Your task to perform on an android device: Show me productivity apps on the Play Store Image 0: 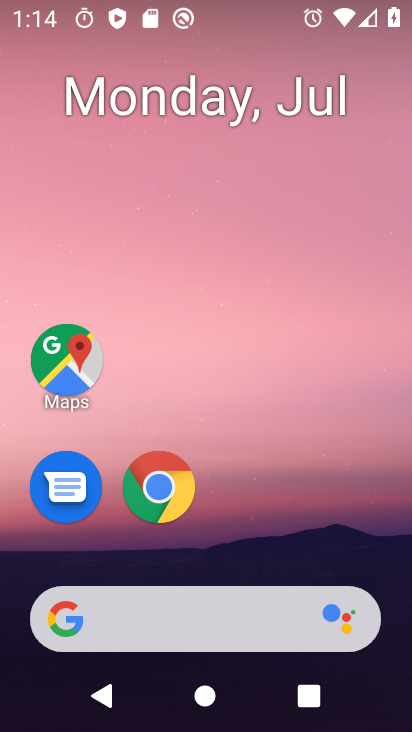
Step 0: press home button
Your task to perform on an android device: Show me productivity apps on the Play Store Image 1: 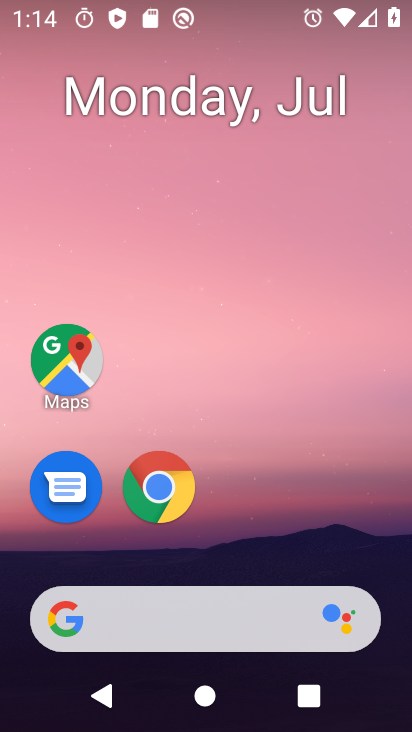
Step 1: press home button
Your task to perform on an android device: Show me productivity apps on the Play Store Image 2: 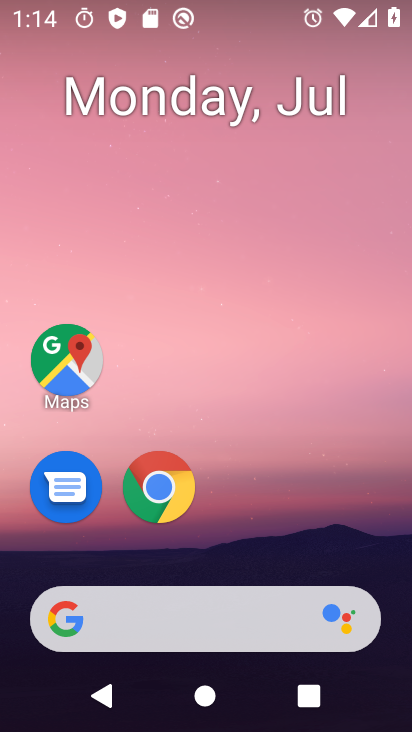
Step 2: drag from (289, 520) to (334, 77)
Your task to perform on an android device: Show me productivity apps on the Play Store Image 3: 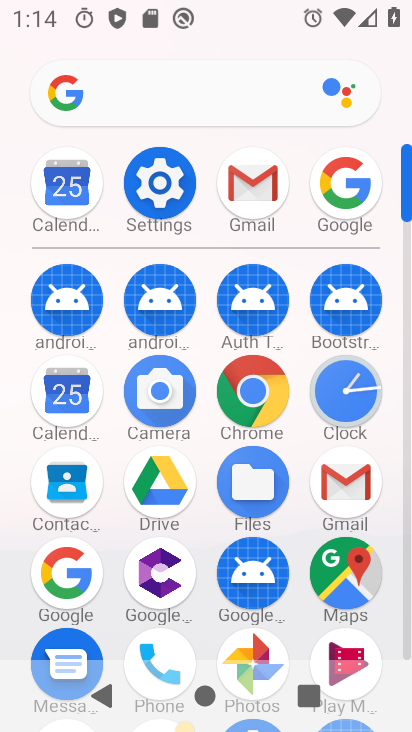
Step 3: drag from (201, 624) to (206, 319)
Your task to perform on an android device: Show me productivity apps on the Play Store Image 4: 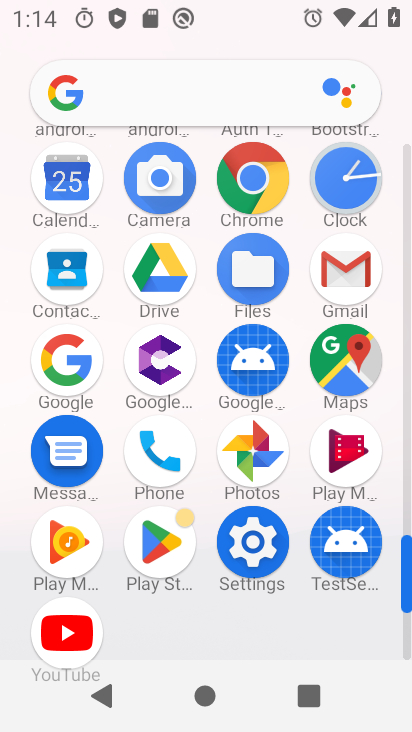
Step 4: click (151, 555)
Your task to perform on an android device: Show me productivity apps on the Play Store Image 5: 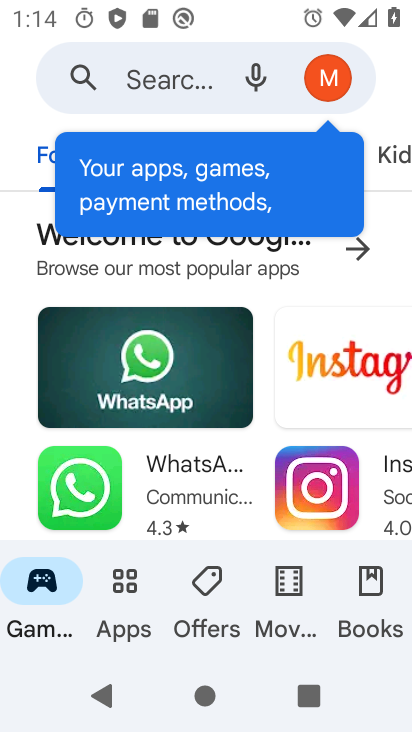
Step 5: click (125, 572)
Your task to perform on an android device: Show me productivity apps on the Play Store Image 6: 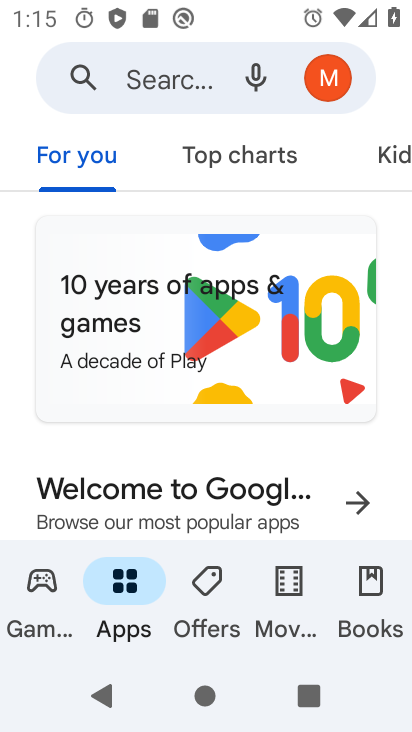
Step 6: drag from (335, 148) to (56, 156)
Your task to perform on an android device: Show me productivity apps on the Play Store Image 7: 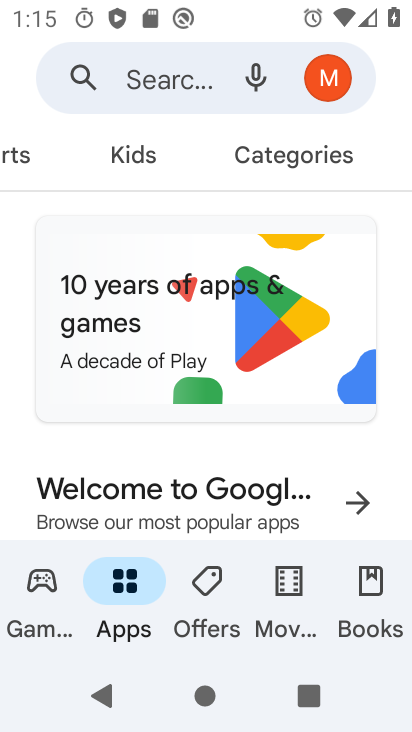
Step 7: click (277, 153)
Your task to perform on an android device: Show me productivity apps on the Play Store Image 8: 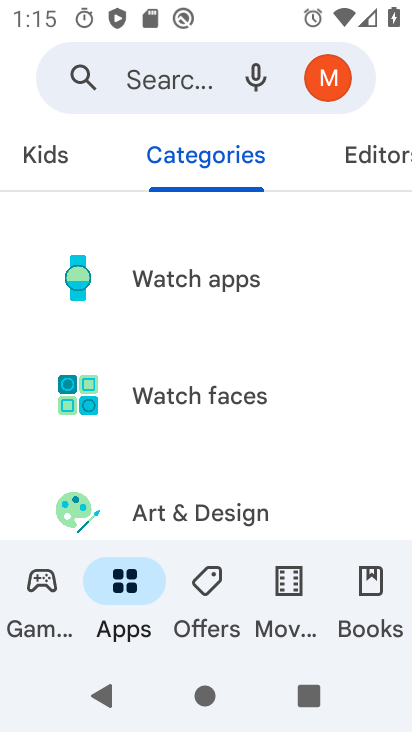
Step 8: drag from (272, 494) to (253, 206)
Your task to perform on an android device: Show me productivity apps on the Play Store Image 9: 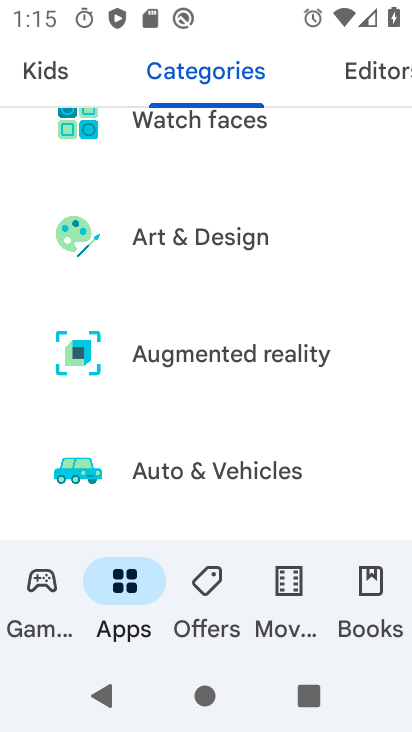
Step 9: drag from (328, 501) to (304, 174)
Your task to perform on an android device: Show me productivity apps on the Play Store Image 10: 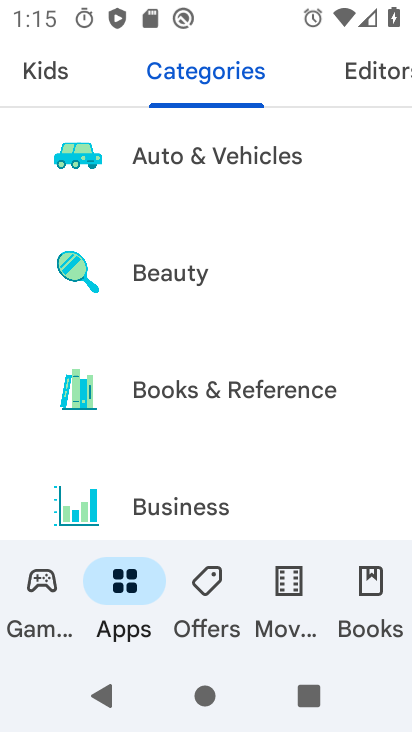
Step 10: drag from (249, 499) to (223, 39)
Your task to perform on an android device: Show me productivity apps on the Play Store Image 11: 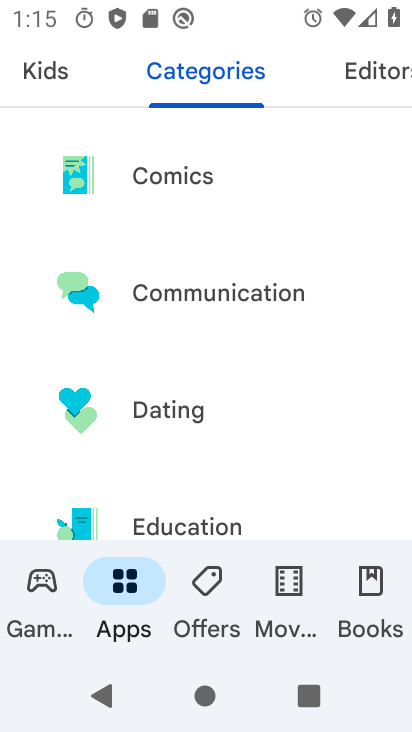
Step 11: drag from (280, 508) to (251, 46)
Your task to perform on an android device: Show me productivity apps on the Play Store Image 12: 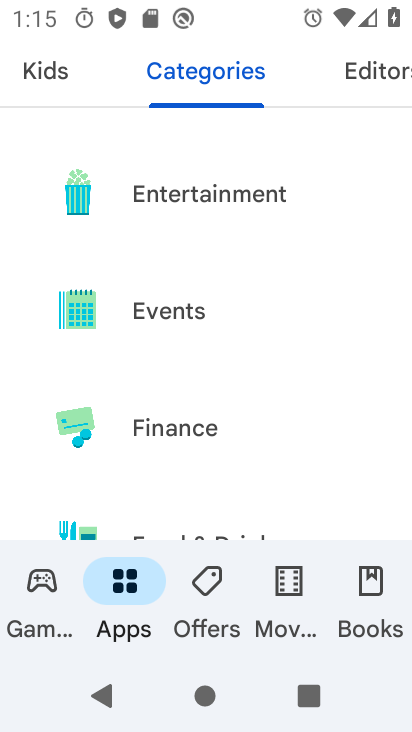
Step 12: drag from (323, 505) to (303, 118)
Your task to perform on an android device: Show me productivity apps on the Play Store Image 13: 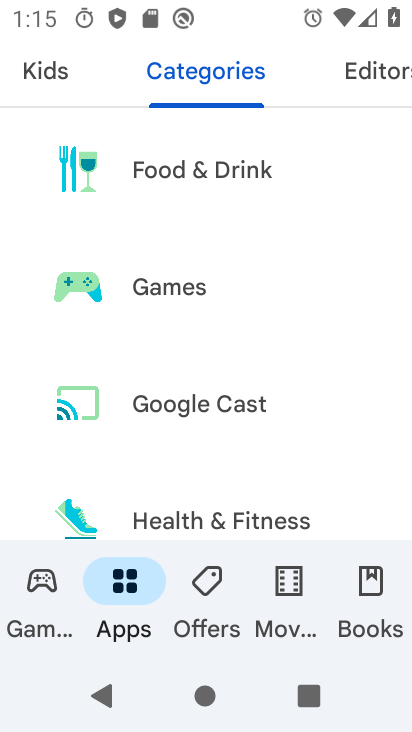
Step 13: drag from (267, 228) to (279, 86)
Your task to perform on an android device: Show me productivity apps on the Play Store Image 14: 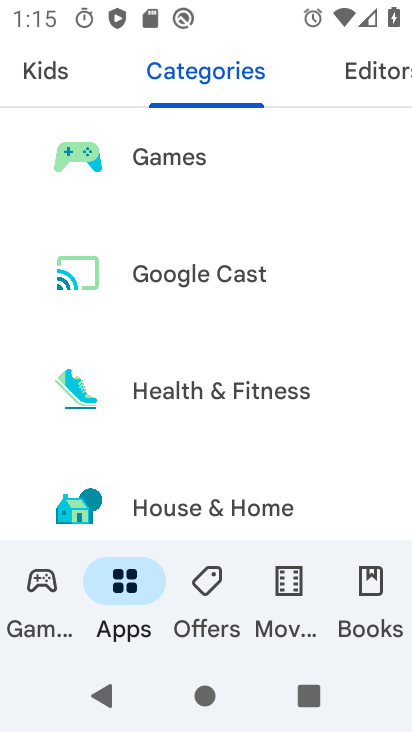
Step 14: drag from (330, 492) to (360, 128)
Your task to perform on an android device: Show me productivity apps on the Play Store Image 15: 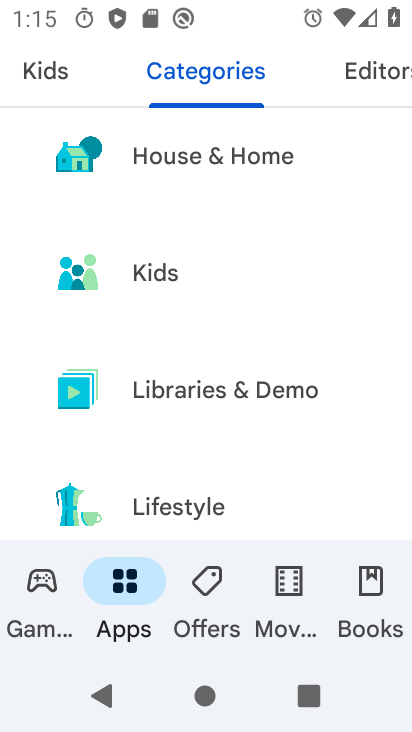
Step 15: drag from (325, 514) to (339, 177)
Your task to perform on an android device: Show me productivity apps on the Play Store Image 16: 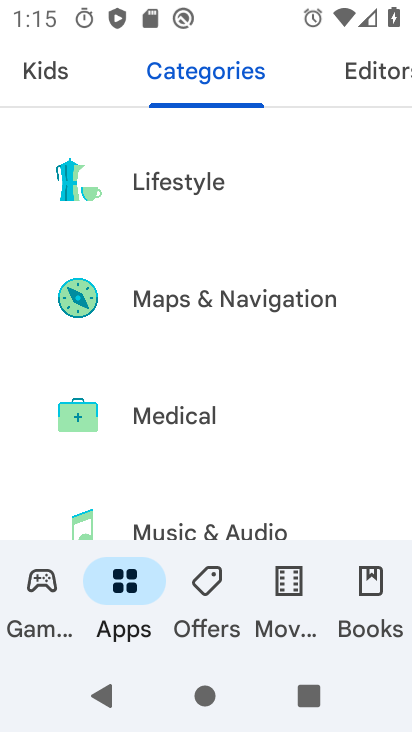
Step 16: drag from (328, 520) to (347, 97)
Your task to perform on an android device: Show me productivity apps on the Play Store Image 17: 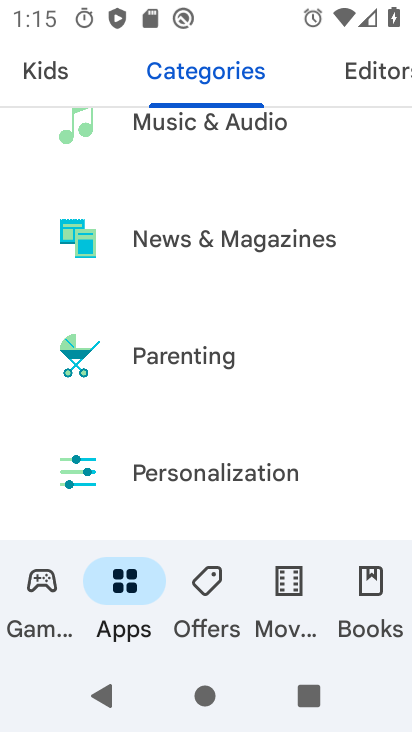
Step 17: drag from (327, 484) to (352, 64)
Your task to perform on an android device: Show me productivity apps on the Play Store Image 18: 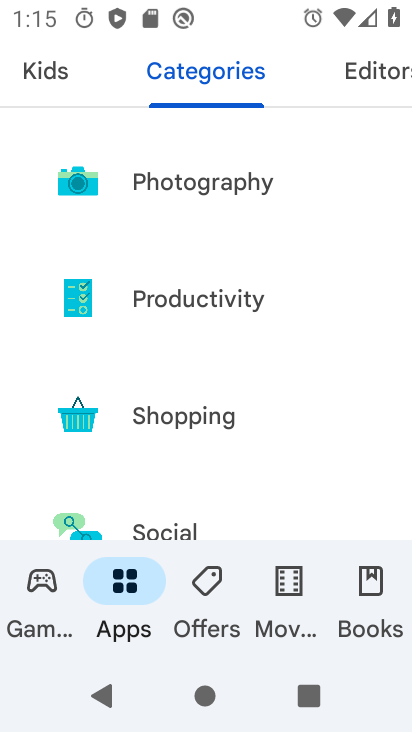
Step 18: click (233, 299)
Your task to perform on an android device: Show me productivity apps on the Play Store Image 19: 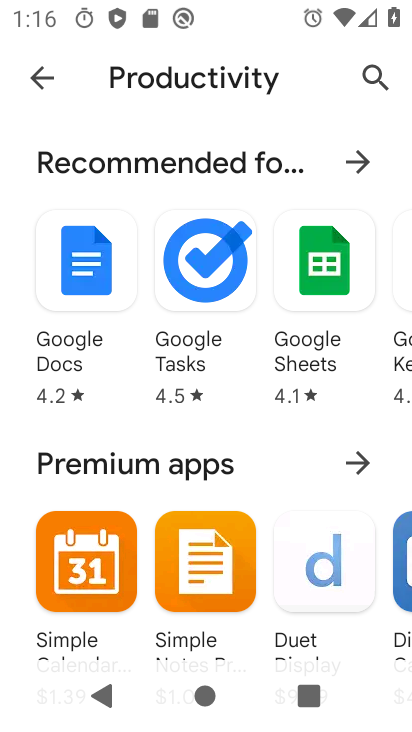
Step 19: task complete